Your task to perform on an android device: Open the Play Movies app and select the watchlist tab. Image 0: 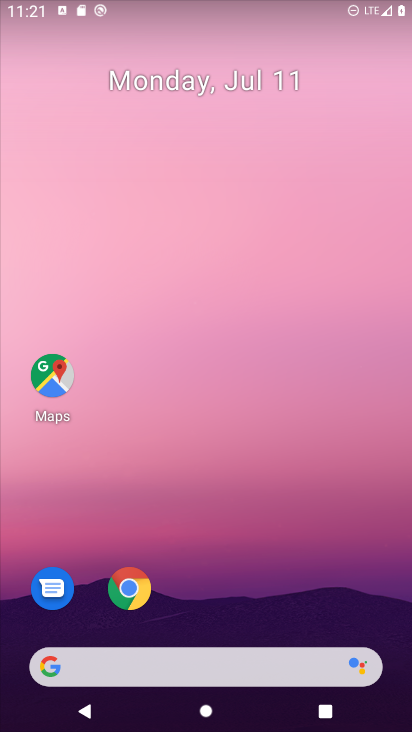
Step 0: drag from (399, 635) to (226, 39)
Your task to perform on an android device: Open the Play Movies app and select the watchlist tab. Image 1: 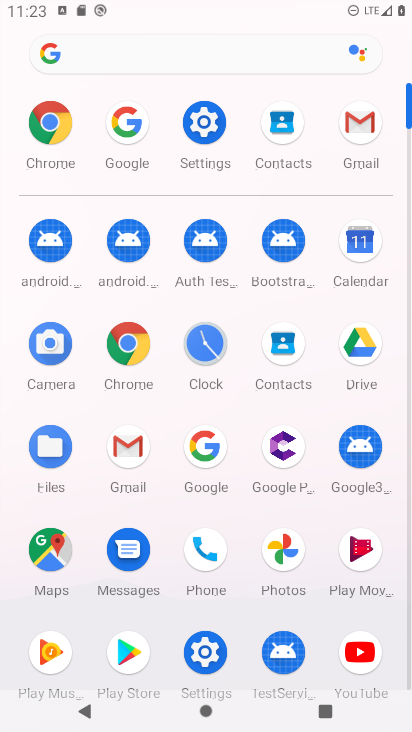
Step 1: drag from (54, 637) to (393, 527)
Your task to perform on an android device: Open the Play Movies app and select the watchlist tab. Image 2: 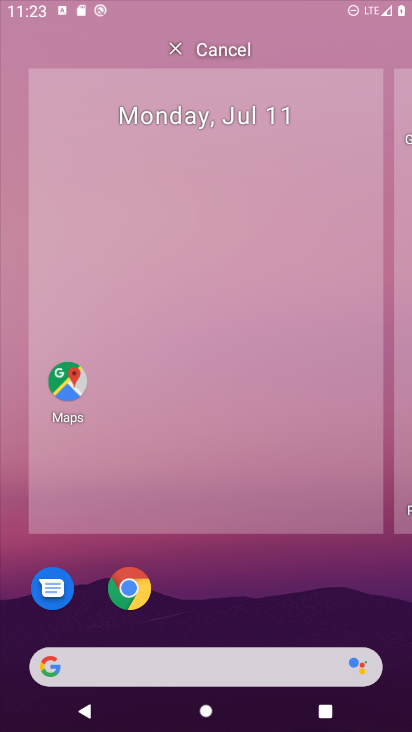
Step 2: drag from (221, 583) to (201, 24)
Your task to perform on an android device: Open the Play Movies app and select the watchlist tab. Image 3: 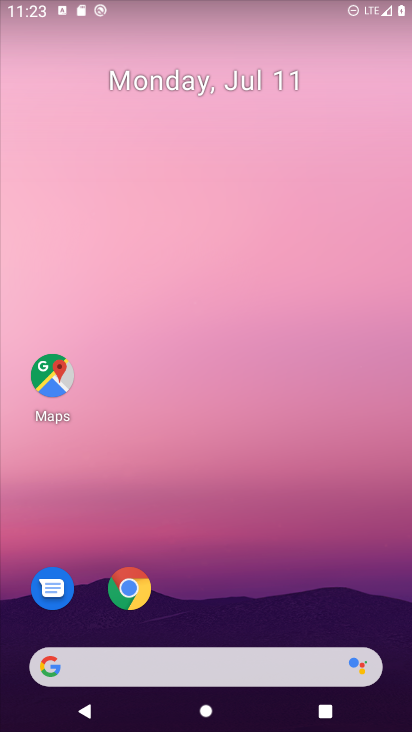
Step 3: drag from (392, 648) to (230, 1)
Your task to perform on an android device: Open the Play Movies app and select the watchlist tab. Image 4: 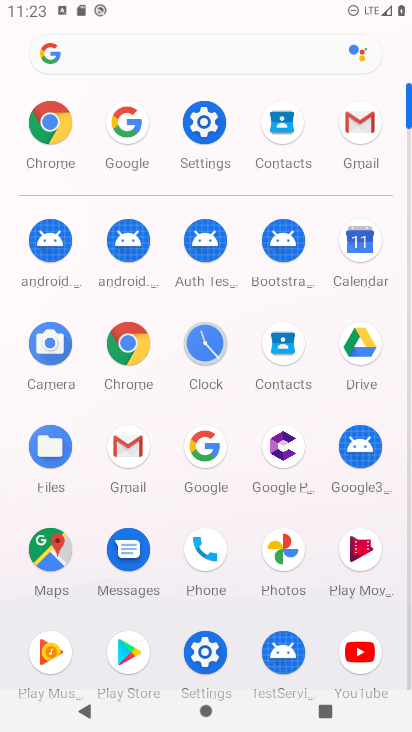
Step 4: click (358, 583)
Your task to perform on an android device: Open the Play Movies app and select the watchlist tab. Image 5: 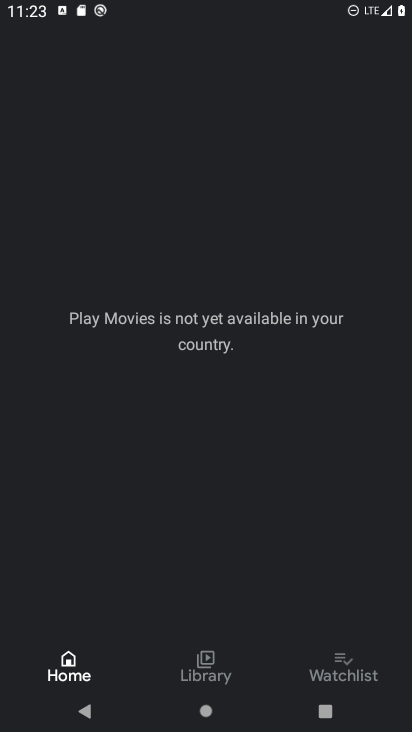
Step 5: click (329, 661)
Your task to perform on an android device: Open the Play Movies app and select the watchlist tab. Image 6: 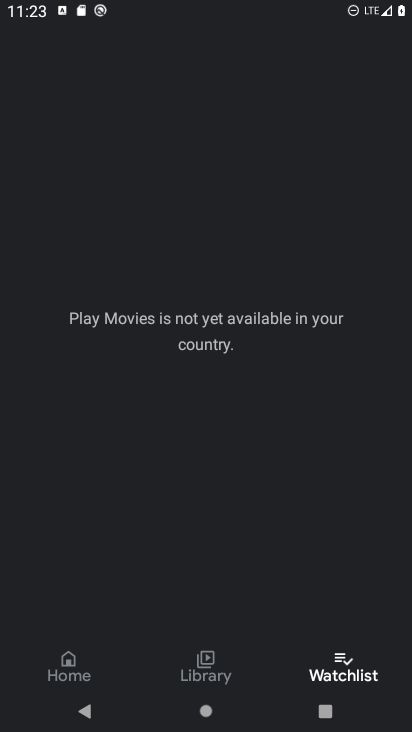
Step 6: task complete